Your task to perform on an android device: open the mobile data screen to see how much data has been used Image 0: 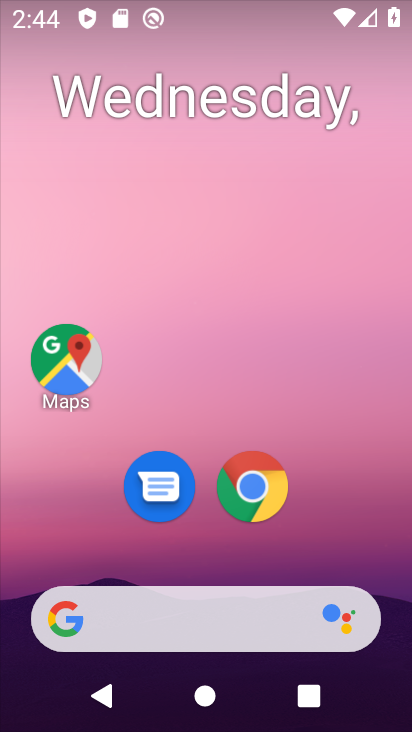
Step 0: drag from (229, 580) to (240, 84)
Your task to perform on an android device: open the mobile data screen to see how much data has been used Image 1: 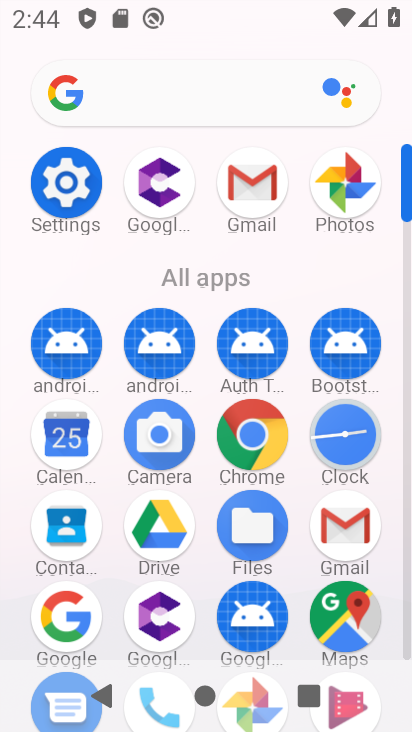
Step 1: click (66, 197)
Your task to perform on an android device: open the mobile data screen to see how much data has been used Image 2: 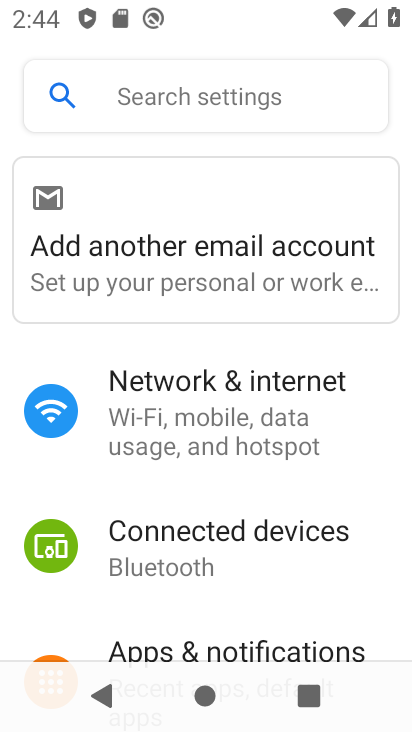
Step 2: click (215, 421)
Your task to perform on an android device: open the mobile data screen to see how much data has been used Image 3: 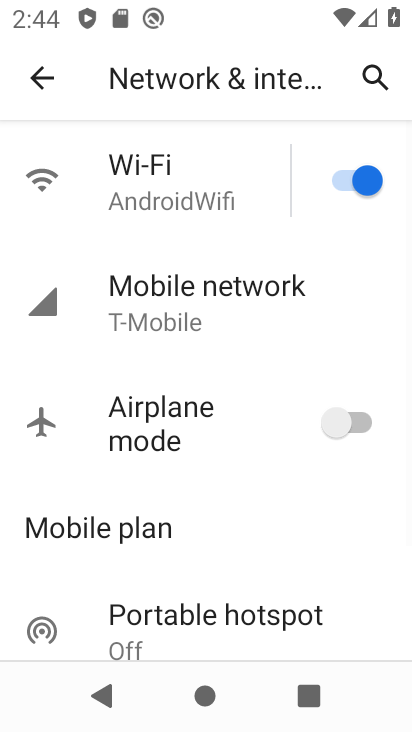
Step 3: click (201, 308)
Your task to perform on an android device: open the mobile data screen to see how much data has been used Image 4: 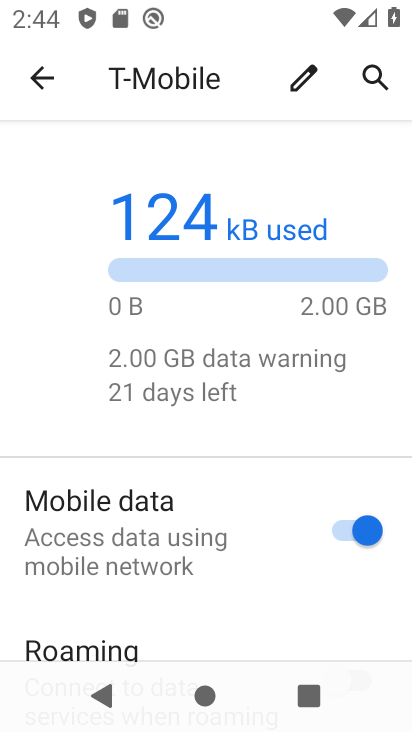
Step 4: task complete